Your task to perform on an android device: Search for vegetarian restaurants on Maps Image 0: 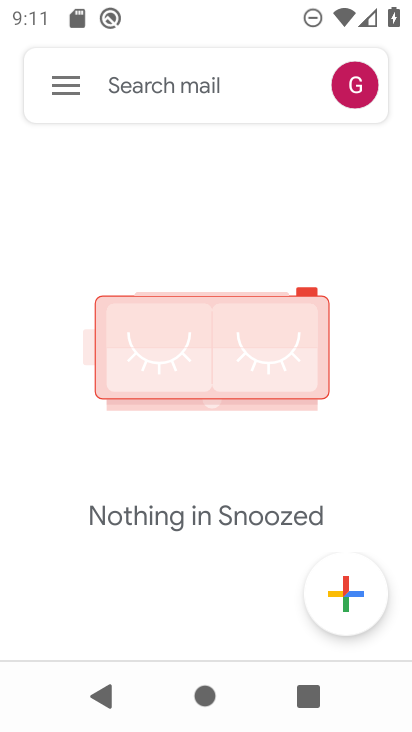
Step 0: press home button
Your task to perform on an android device: Search for vegetarian restaurants on Maps Image 1: 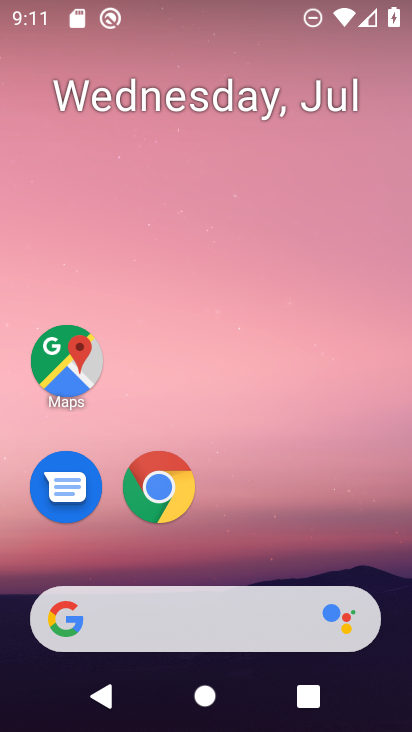
Step 1: drag from (377, 547) to (395, 108)
Your task to perform on an android device: Search for vegetarian restaurants on Maps Image 2: 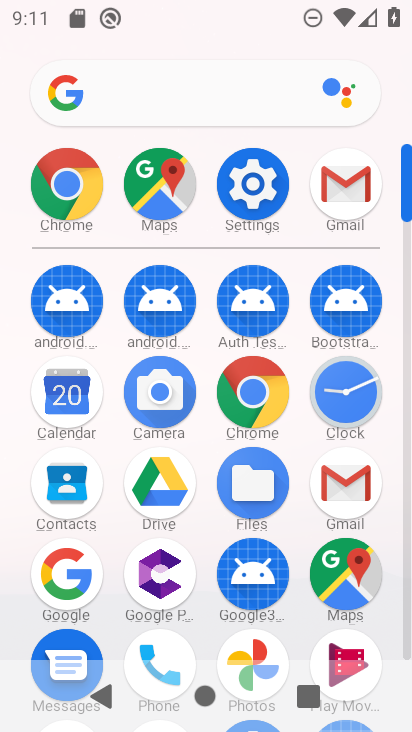
Step 2: click (348, 572)
Your task to perform on an android device: Search for vegetarian restaurants on Maps Image 3: 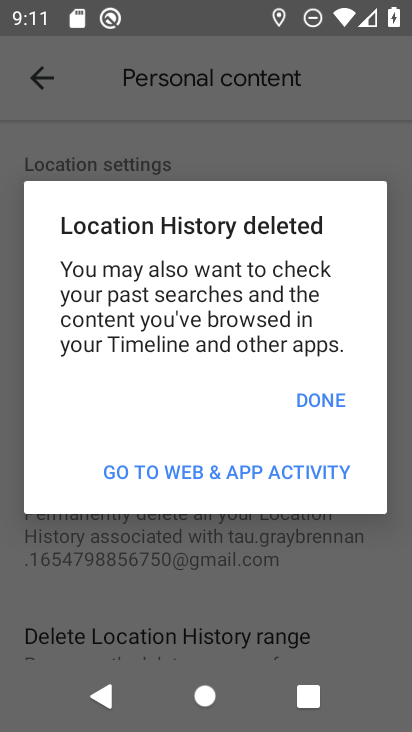
Step 3: press back button
Your task to perform on an android device: Search for vegetarian restaurants on Maps Image 4: 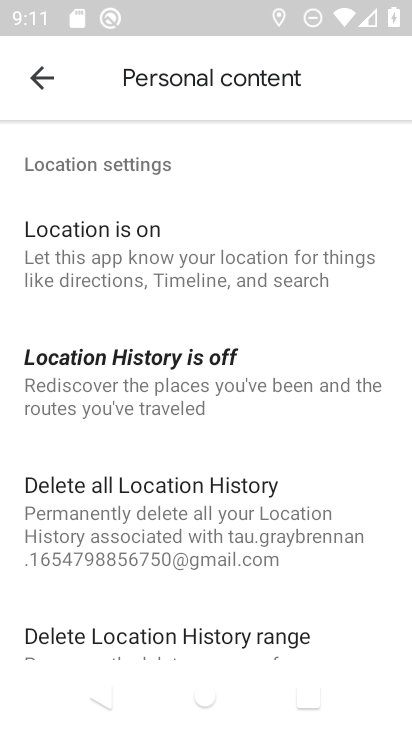
Step 4: press back button
Your task to perform on an android device: Search for vegetarian restaurants on Maps Image 5: 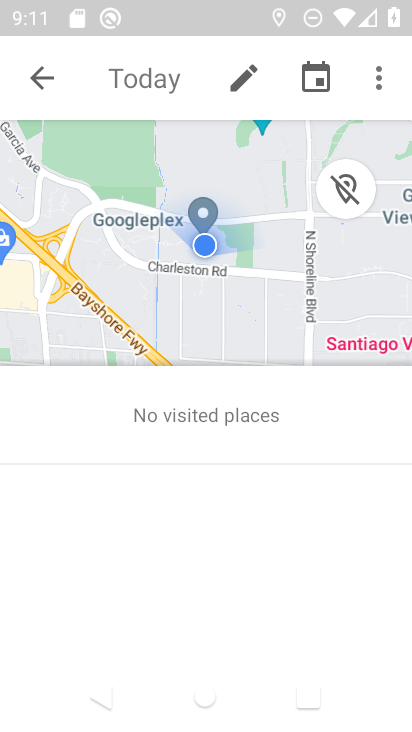
Step 5: press back button
Your task to perform on an android device: Search for vegetarian restaurants on Maps Image 6: 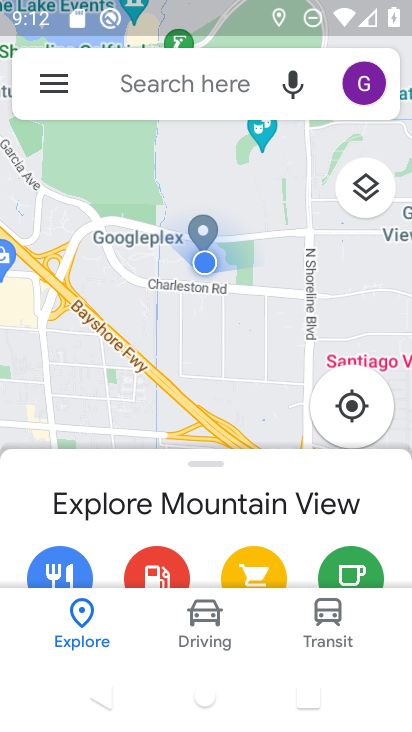
Step 6: click (168, 87)
Your task to perform on an android device: Search for vegetarian restaurants on Maps Image 7: 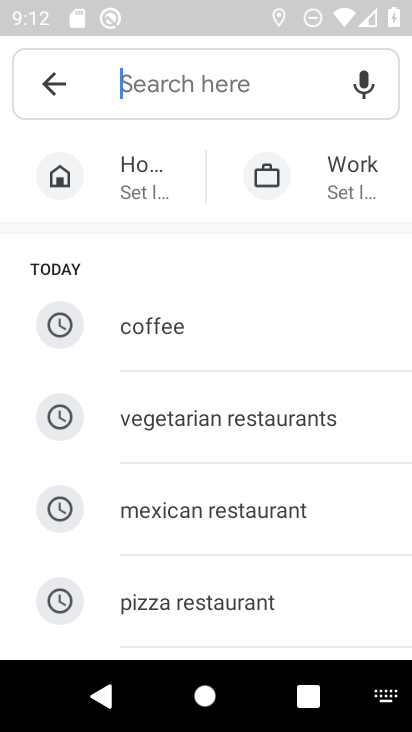
Step 7: type "vegetrain restaurants"
Your task to perform on an android device: Search for vegetarian restaurants on Maps Image 8: 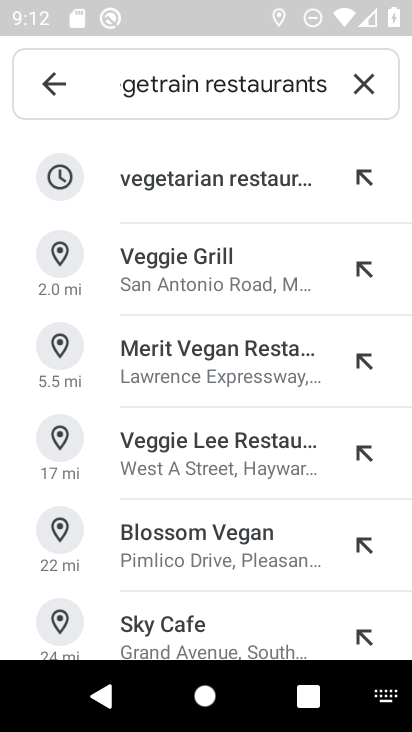
Step 8: click (305, 190)
Your task to perform on an android device: Search for vegetarian restaurants on Maps Image 9: 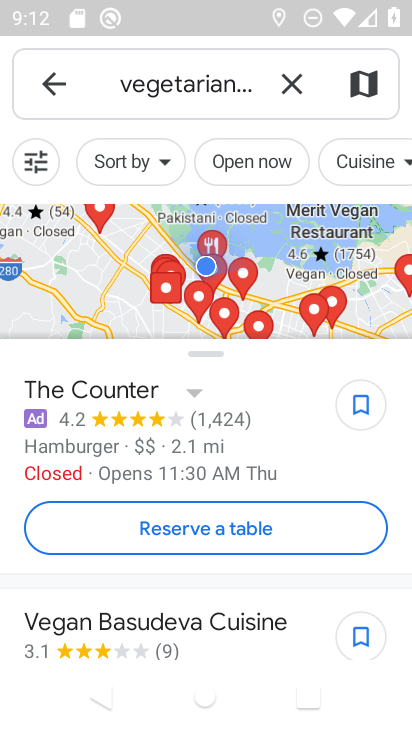
Step 9: task complete